Your task to perform on an android device: create a new album in the google photos Image 0: 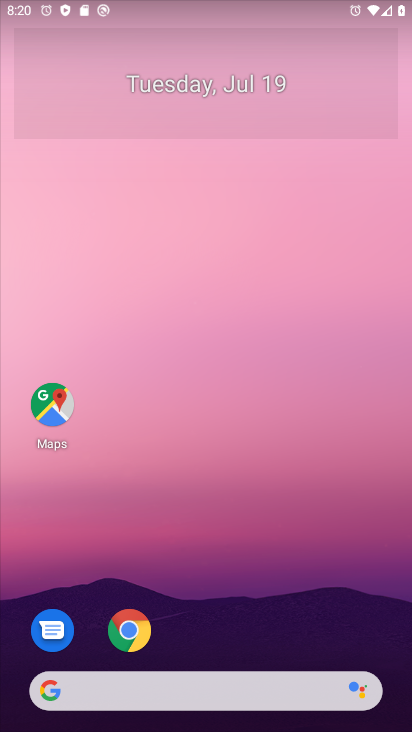
Step 0: drag from (247, 471) to (233, 177)
Your task to perform on an android device: create a new album in the google photos Image 1: 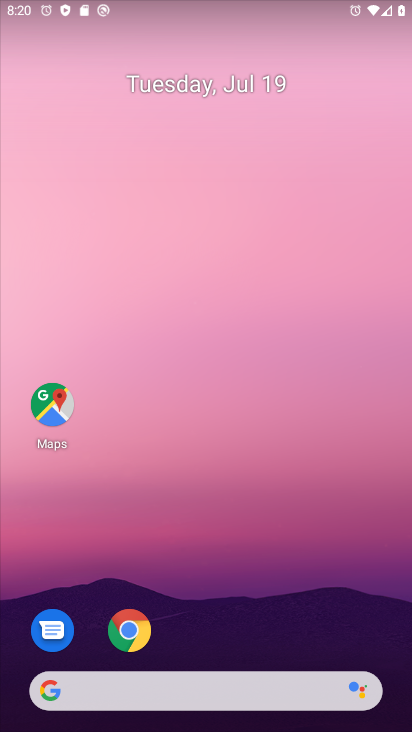
Step 1: drag from (291, 557) to (296, 242)
Your task to perform on an android device: create a new album in the google photos Image 2: 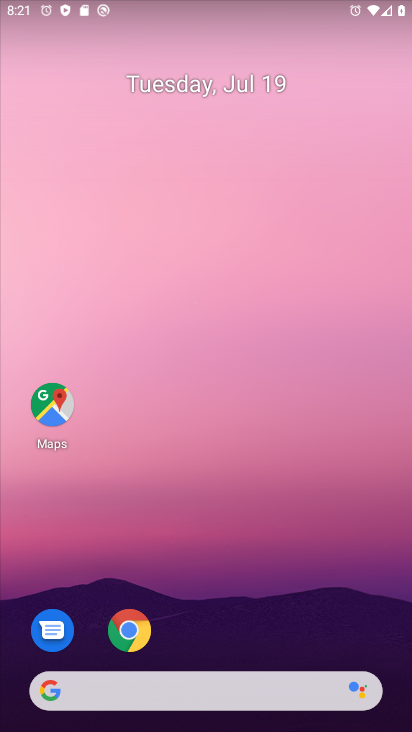
Step 2: drag from (255, 564) to (235, 227)
Your task to perform on an android device: create a new album in the google photos Image 3: 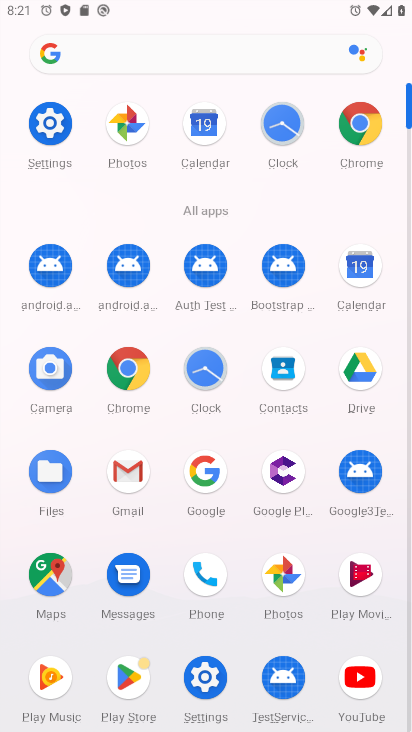
Step 3: click (277, 577)
Your task to perform on an android device: create a new album in the google photos Image 4: 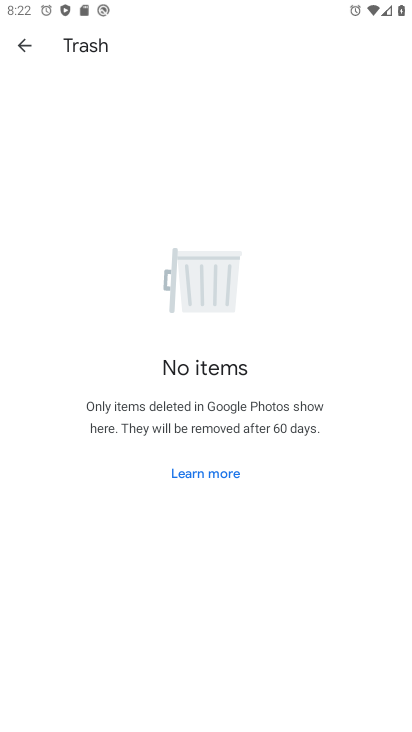
Step 4: click (25, 41)
Your task to perform on an android device: create a new album in the google photos Image 5: 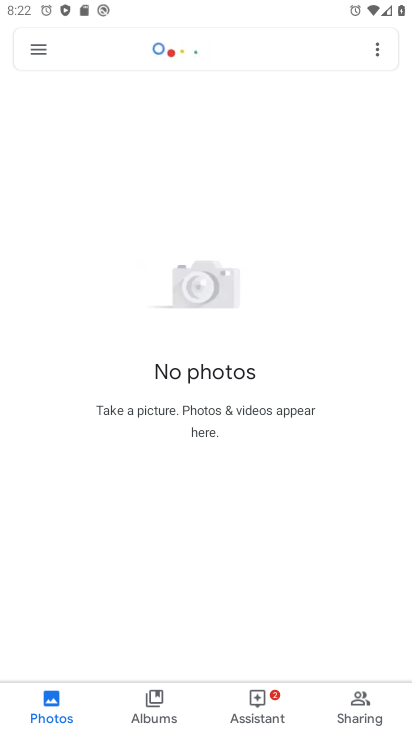
Step 5: click (156, 699)
Your task to perform on an android device: create a new album in the google photos Image 6: 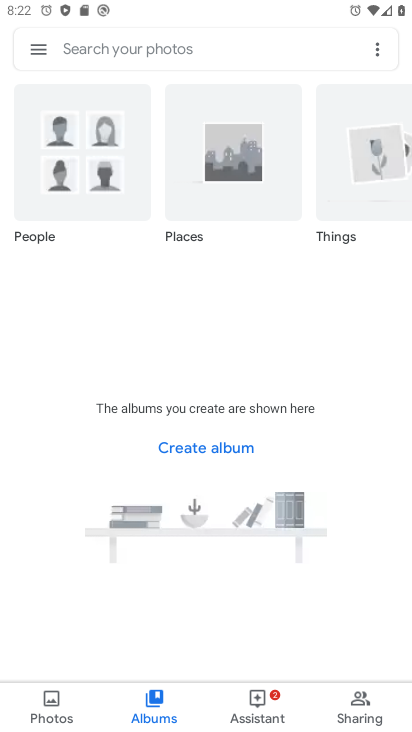
Step 6: task complete